Your task to perform on an android device: turn on translation in the chrome app Image 0: 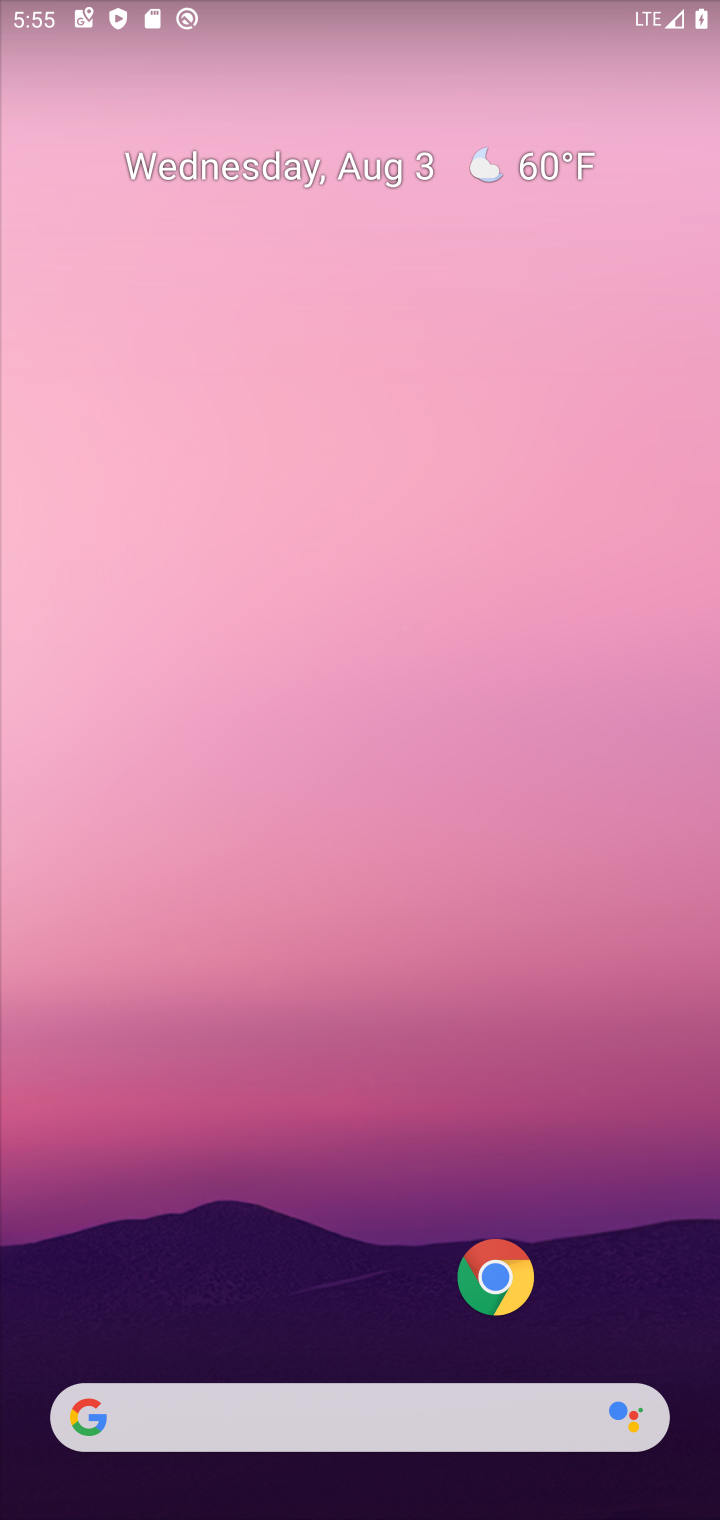
Step 0: click (510, 1262)
Your task to perform on an android device: turn on translation in the chrome app Image 1: 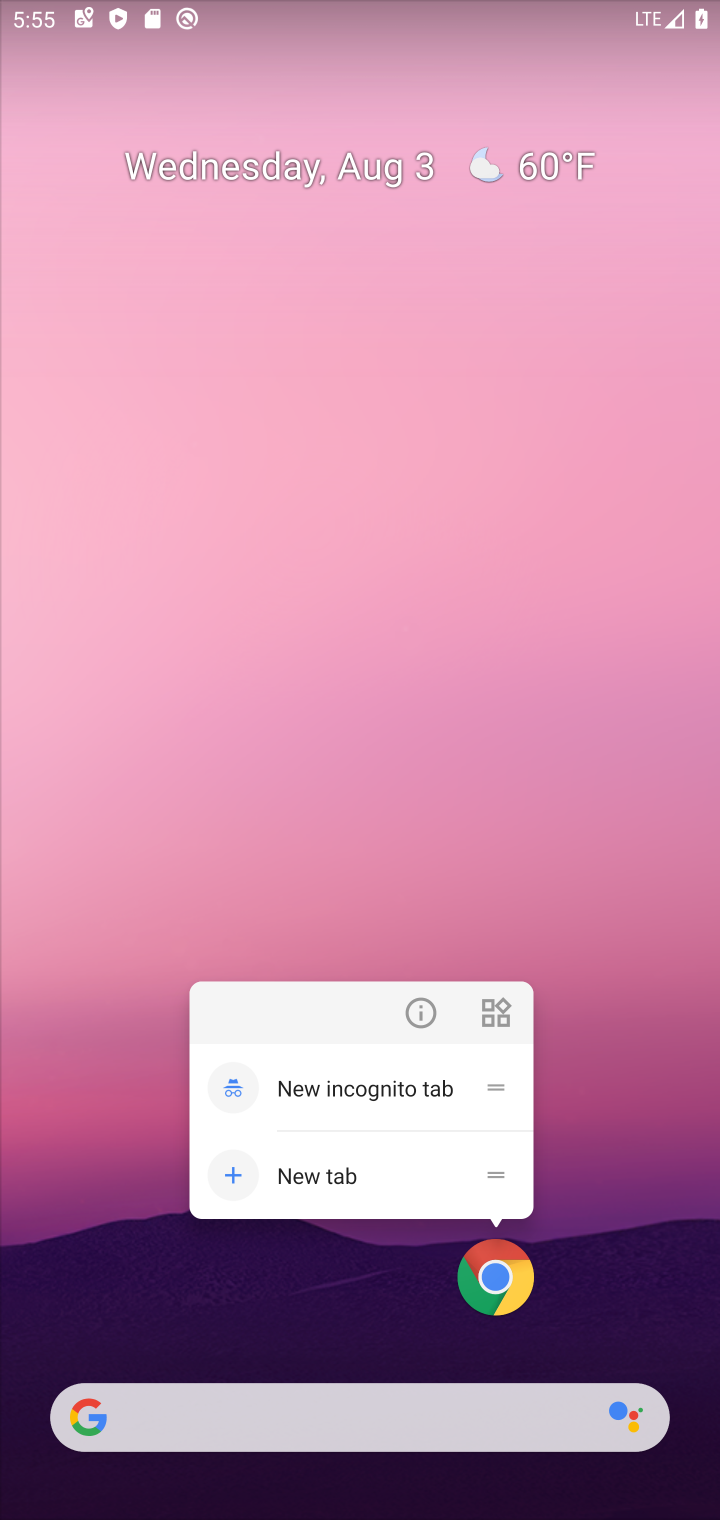
Step 1: click (504, 1268)
Your task to perform on an android device: turn on translation in the chrome app Image 2: 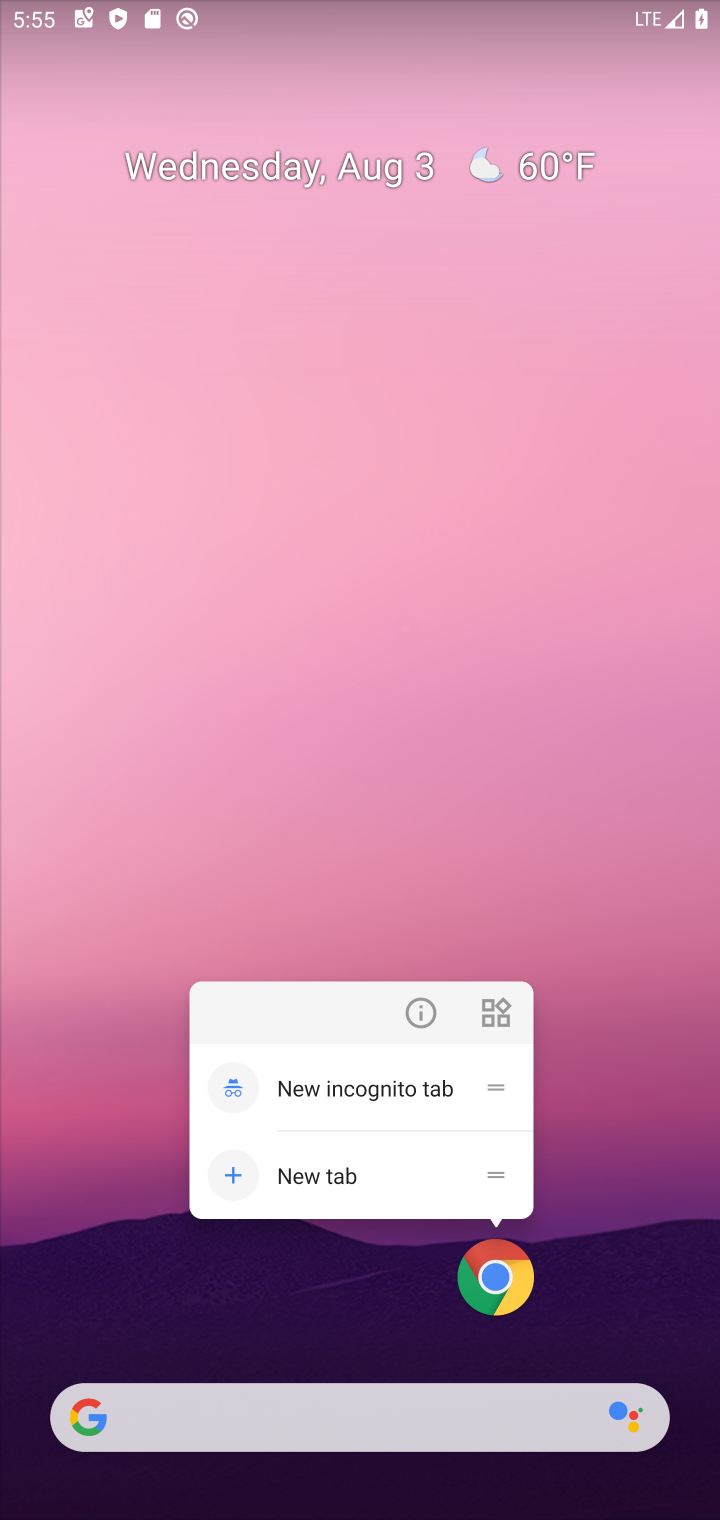
Step 2: click (487, 1306)
Your task to perform on an android device: turn on translation in the chrome app Image 3: 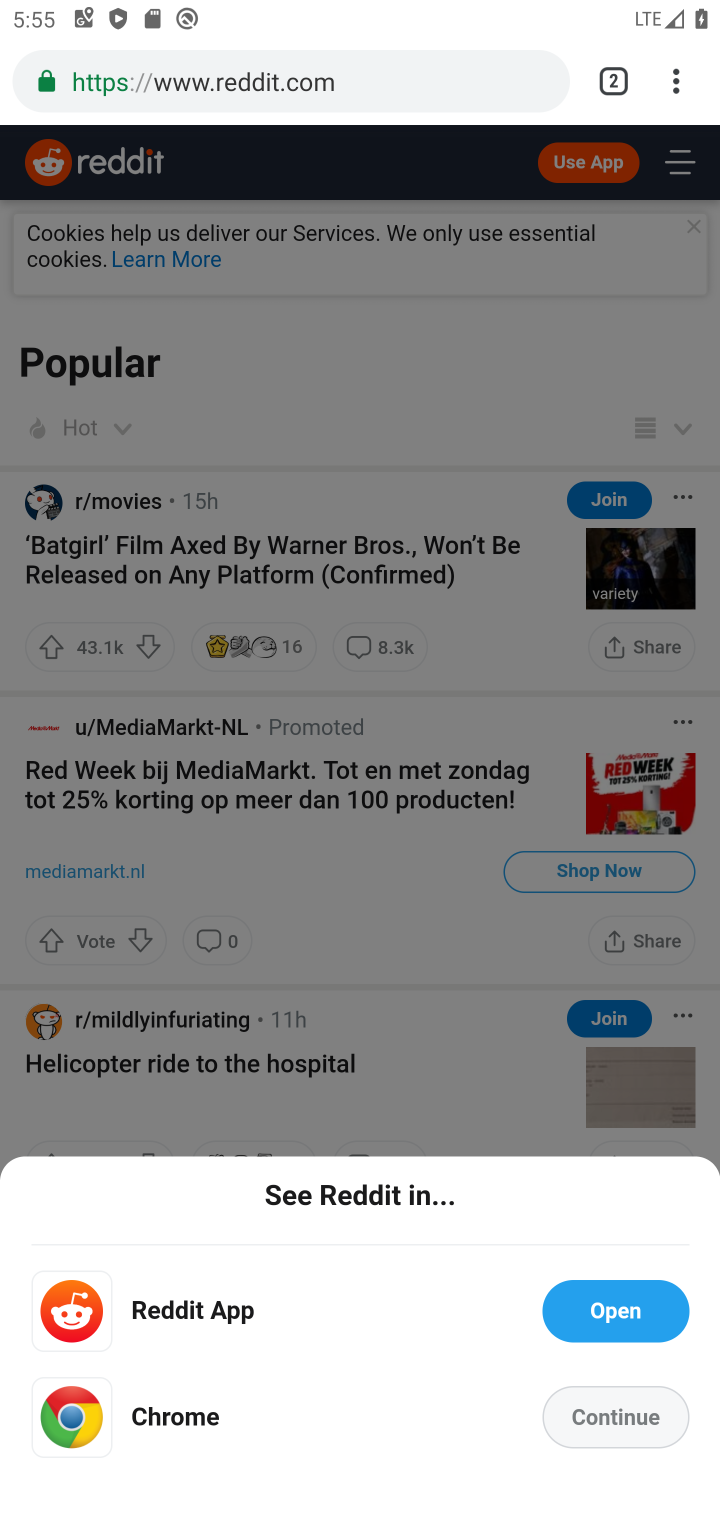
Step 3: drag from (682, 75) to (391, 1071)
Your task to perform on an android device: turn on translation in the chrome app Image 4: 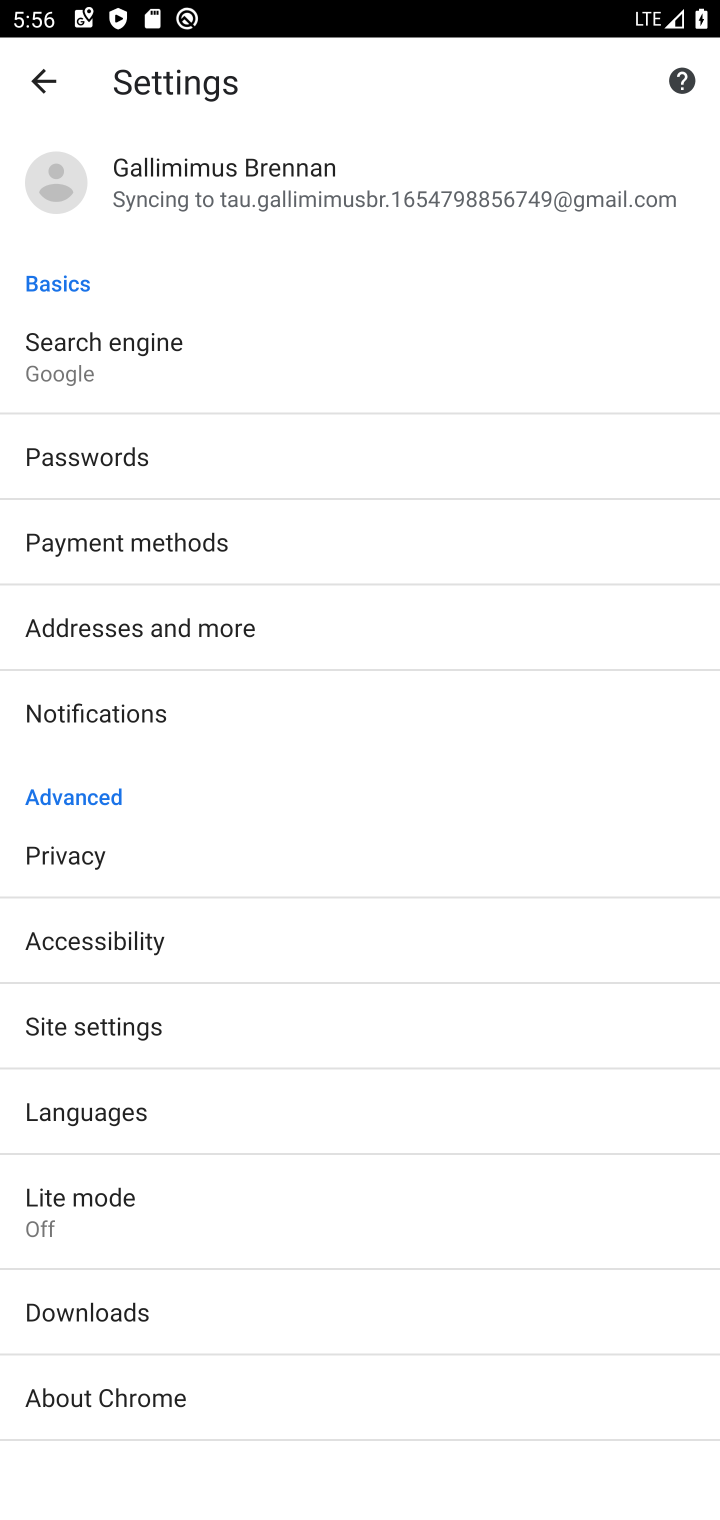
Step 4: click (121, 1095)
Your task to perform on an android device: turn on translation in the chrome app Image 5: 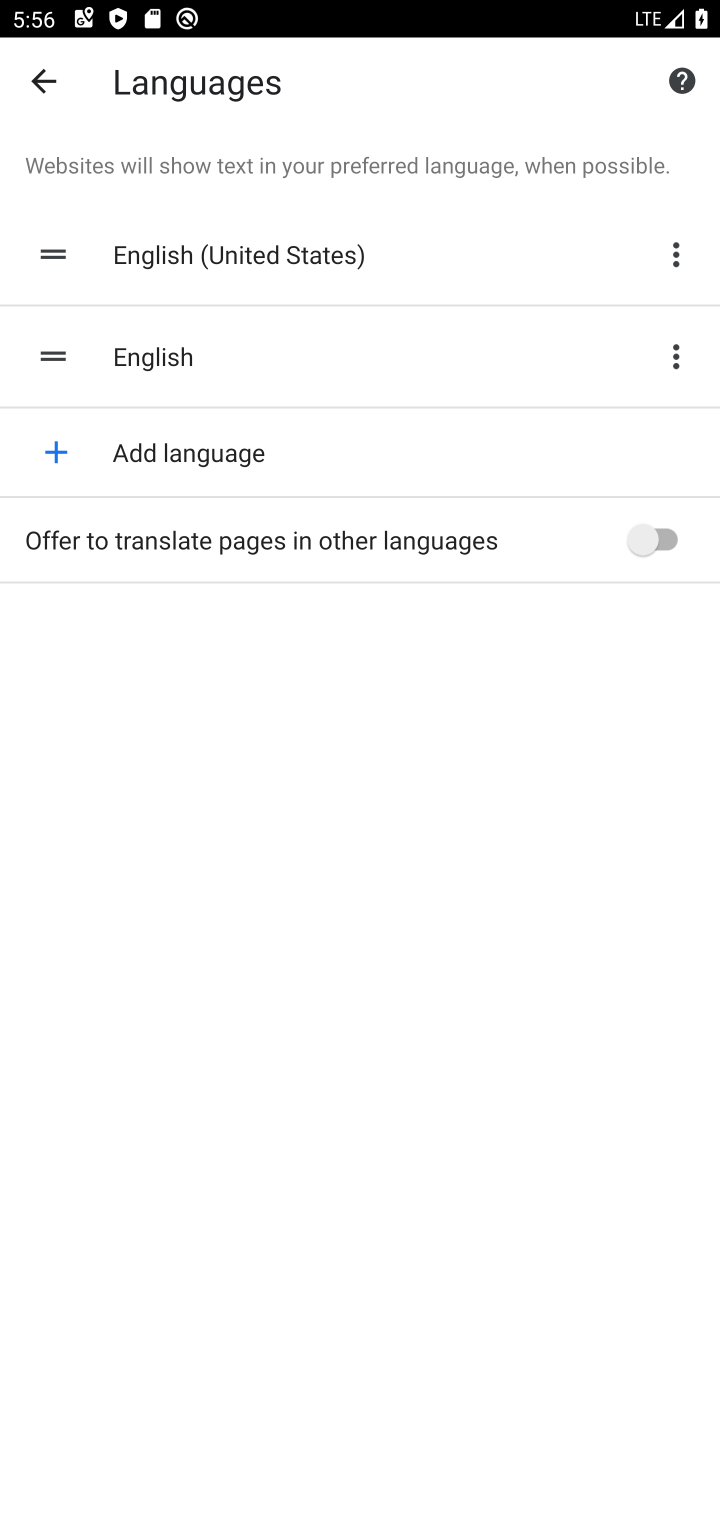
Step 5: click (649, 526)
Your task to perform on an android device: turn on translation in the chrome app Image 6: 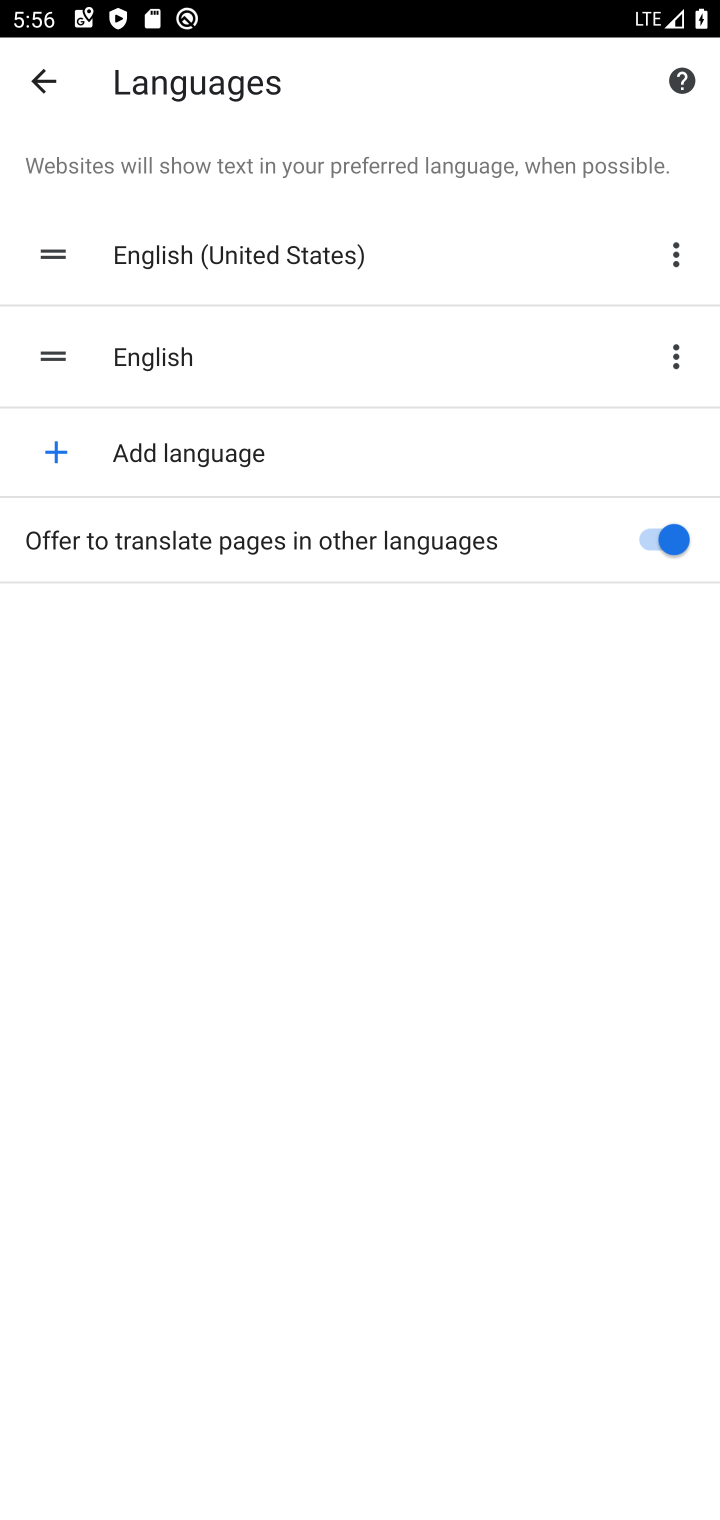
Step 6: task complete